Your task to perform on an android device: toggle pop-ups in chrome Image 0: 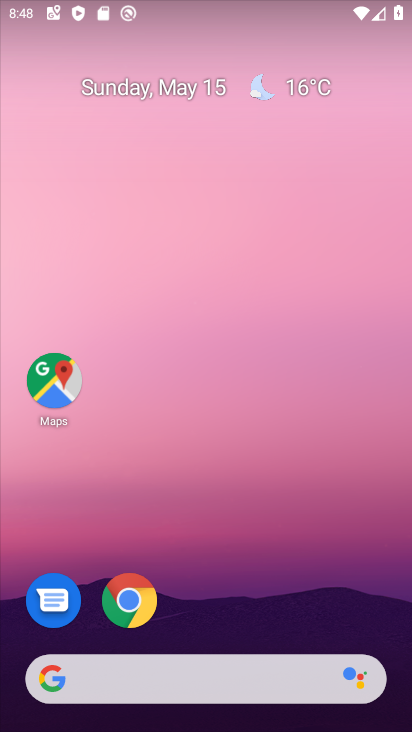
Step 0: click (137, 601)
Your task to perform on an android device: toggle pop-ups in chrome Image 1: 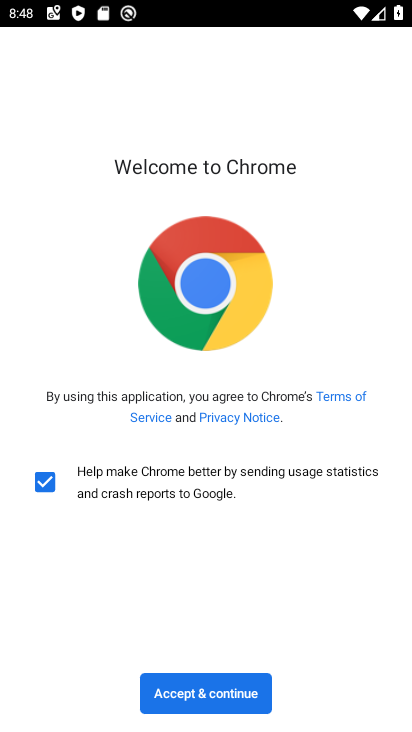
Step 1: click (205, 687)
Your task to perform on an android device: toggle pop-ups in chrome Image 2: 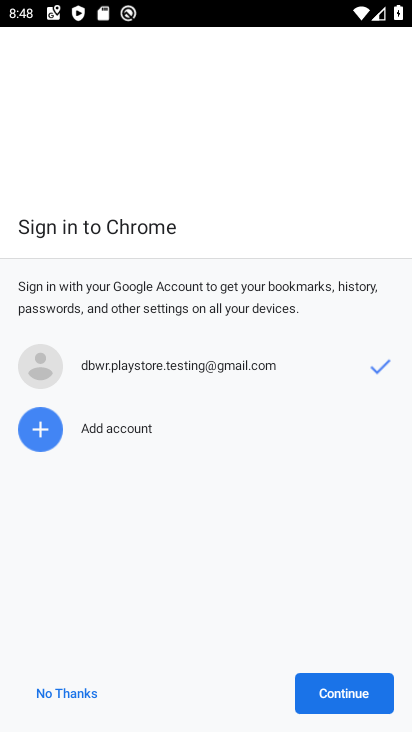
Step 2: click (369, 695)
Your task to perform on an android device: toggle pop-ups in chrome Image 3: 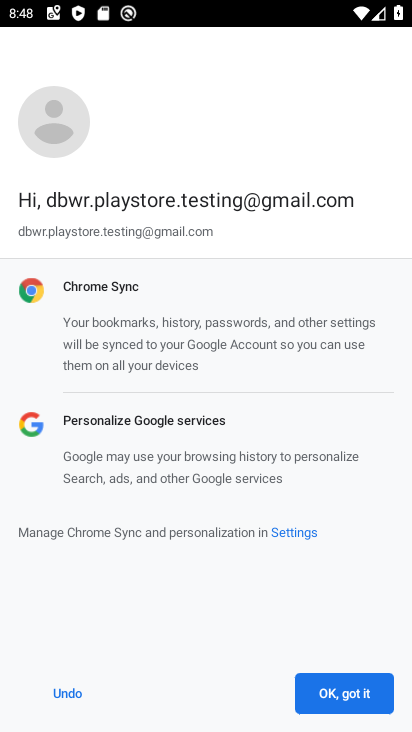
Step 3: click (369, 695)
Your task to perform on an android device: toggle pop-ups in chrome Image 4: 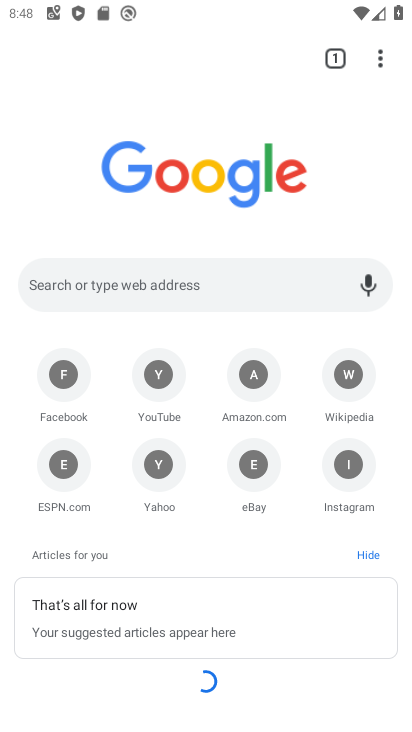
Step 4: click (376, 63)
Your task to perform on an android device: toggle pop-ups in chrome Image 5: 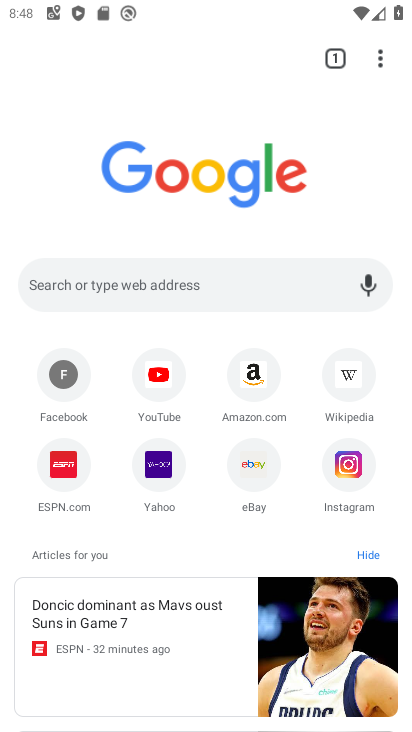
Step 5: click (376, 63)
Your task to perform on an android device: toggle pop-ups in chrome Image 6: 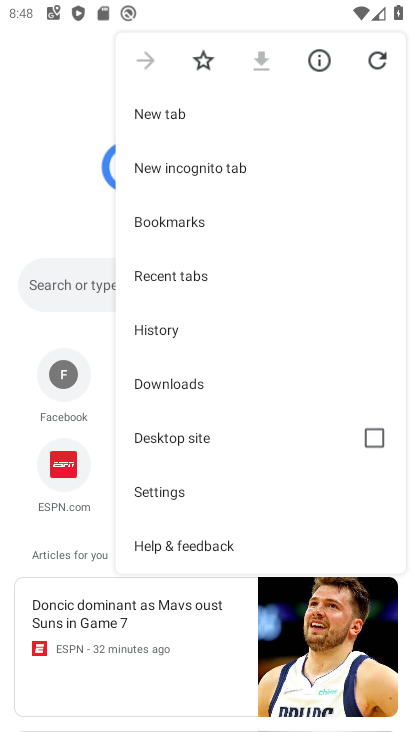
Step 6: click (167, 490)
Your task to perform on an android device: toggle pop-ups in chrome Image 7: 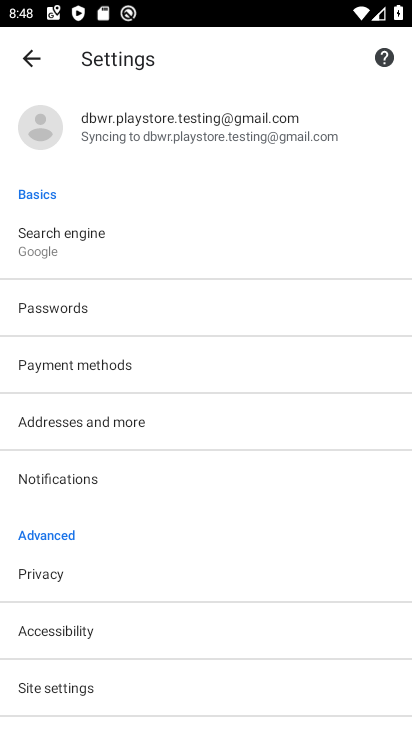
Step 7: click (53, 682)
Your task to perform on an android device: toggle pop-ups in chrome Image 8: 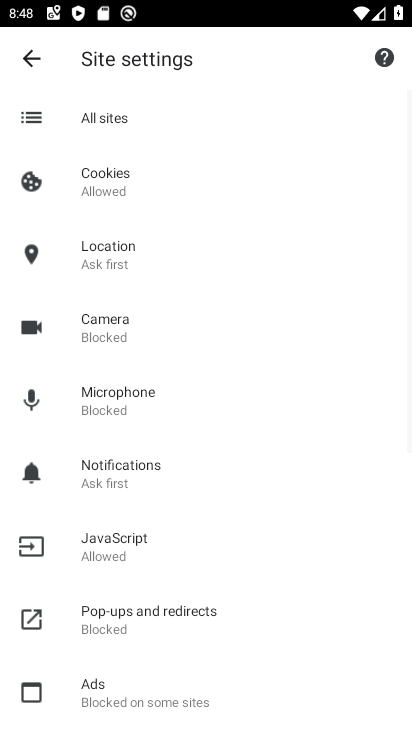
Step 8: click (172, 616)
Your task to perform on an android device: toggle pop-ups in chrome Image 9: 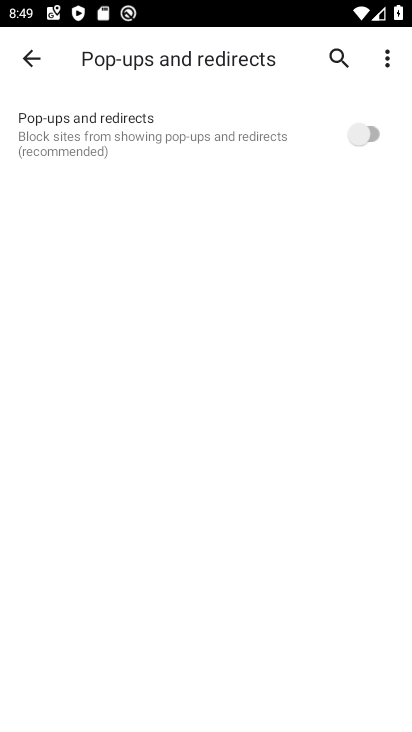
Step 9: click (361, 132)
Your task to perform on an android device: toggle pop-ups in chrome Image 10: 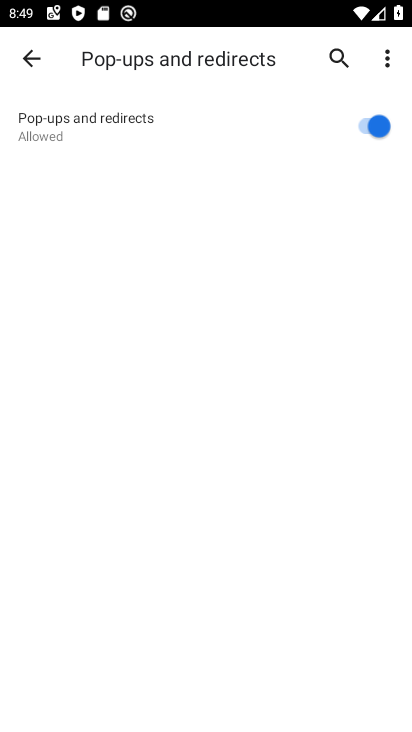
Step 10: task complete